Your task to perform on an android device: Open battery settings Image 0: 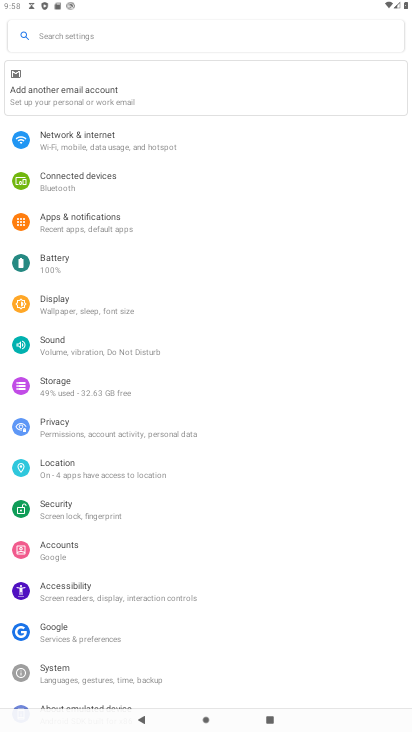
Step 0: click (85, 273)
Your task to perform on an android device: Open battery settings Image 1: 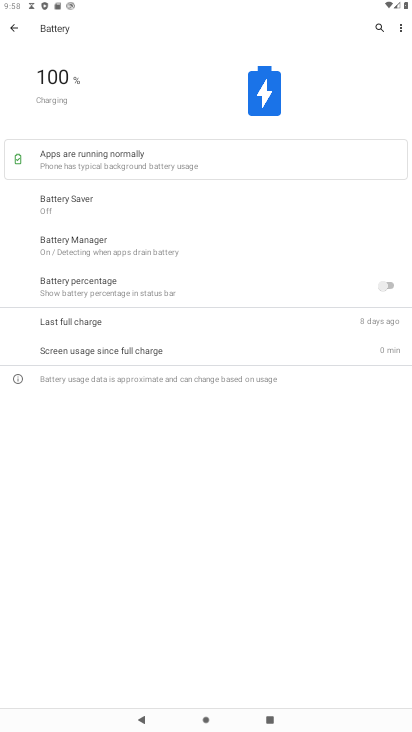
Step 1: task complete